Your task to perform on an android device: remove spam from my inbox in the gmail app Image 0: 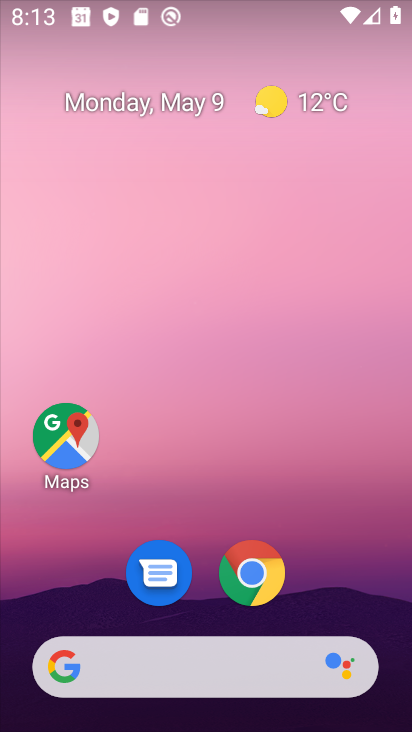
Step 0: drag from (319, 627) to (245, 147)
Your task to perform on an android device: remove spam from my inbox in the gmail app Image 1: 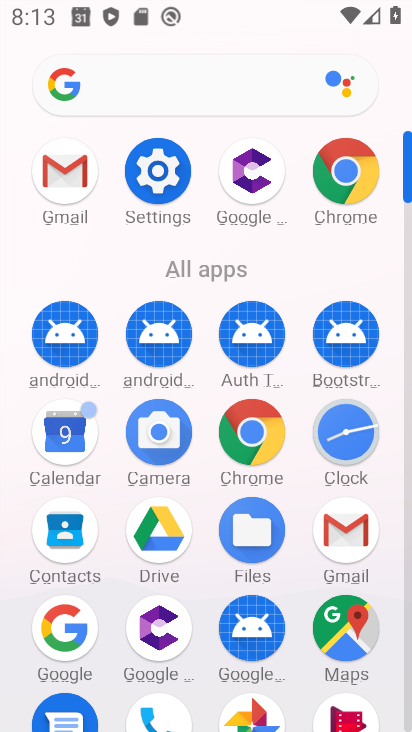
Step 1: click (338, 539)
Your task to perform on an android device: remove spam from my inbox in the gmail app Image 2: 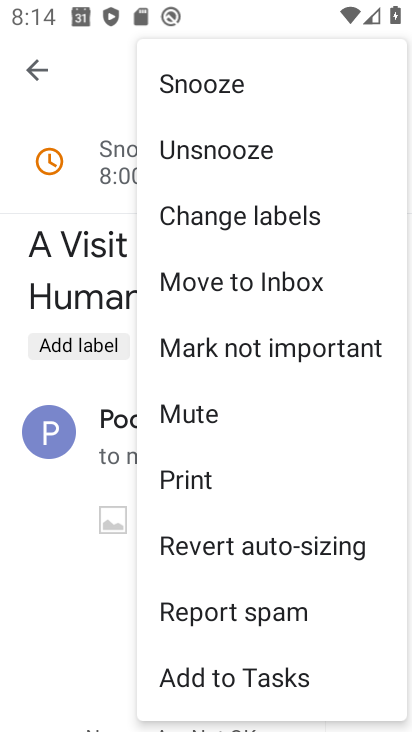
Step 2: drag from (253, 522) to (250, 264)
Your task to perform on an android device: remove spam from my inbox in the gmail app Image 3: 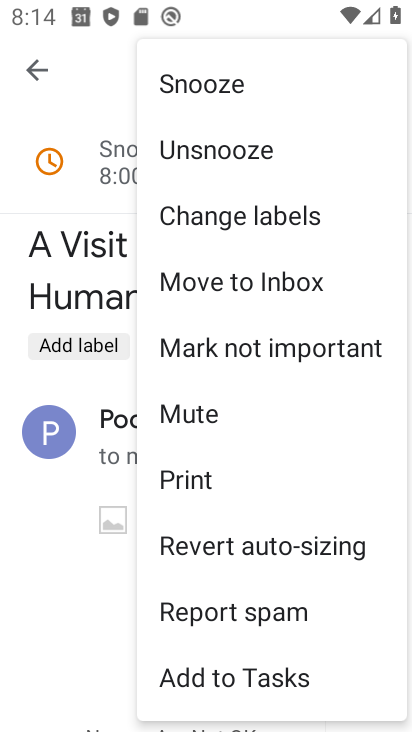
Step 3: click (47, 74)
Your task to perform on an android device: remove spam from my inbox in the gmail app Image 4: 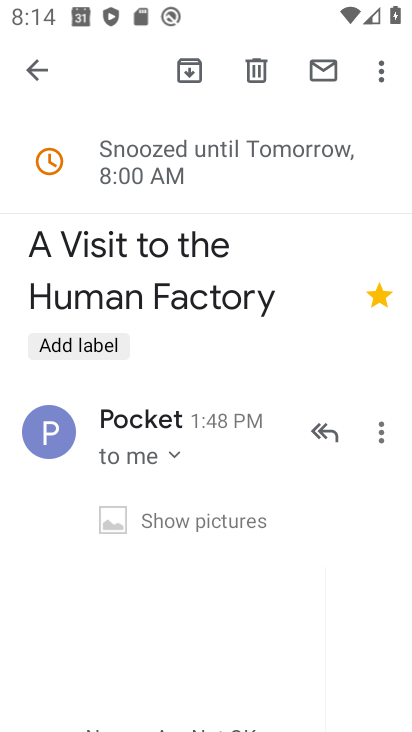
Step 4: click (40, 67)
Your task to perform on an android device: remove spam from my inbox in the gmail app Image 5: 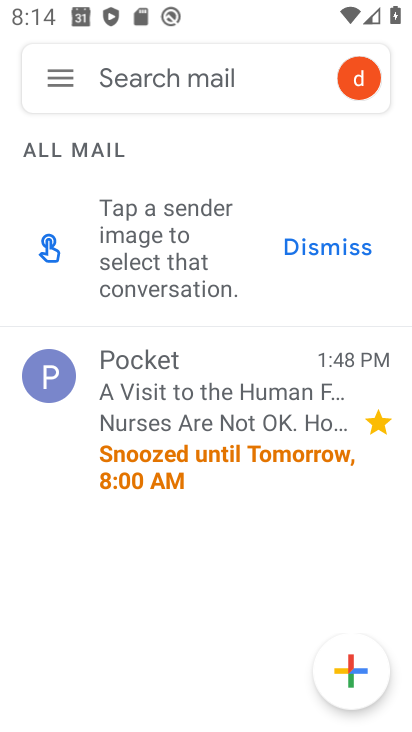
Step 5: click (60, 86)
Your task to perform on an android device: remove spam from my inbox in the gmail app Image 6: 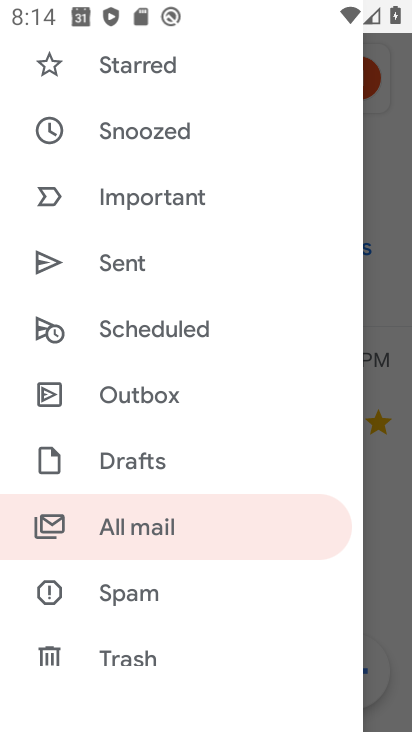
Step 6: click (145, 592)
Your task to perform on an android device: remove spam from my inbox in the gmail app Image 7: 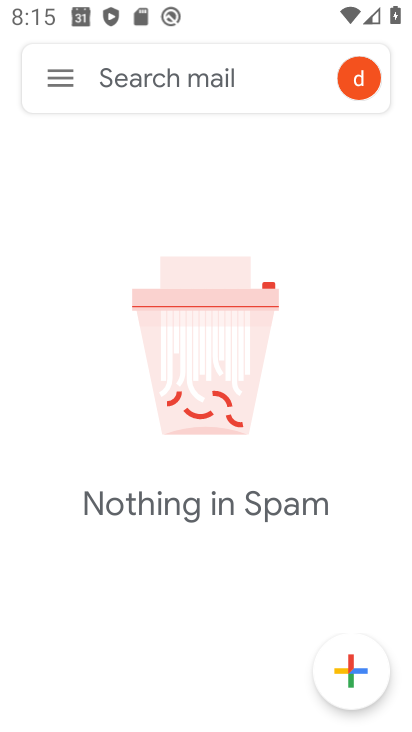
Step 7: task complete